Your task to perform on an android device: all mails in gmail Image 0: 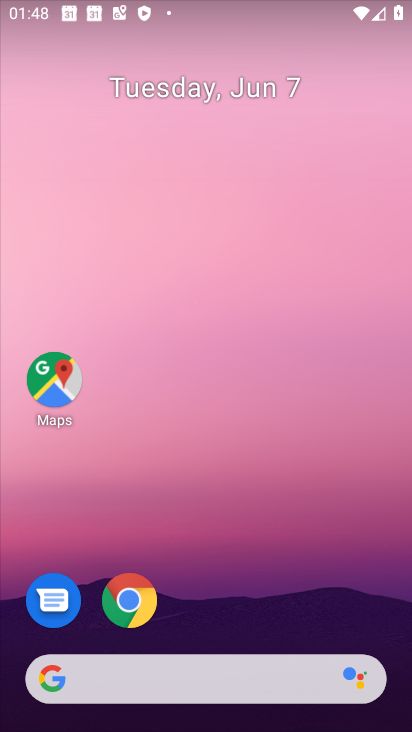
Step 0: drag from (206, 727) to (206, 174)
Your task to perform on an android device: all mails in gmail Image 1: 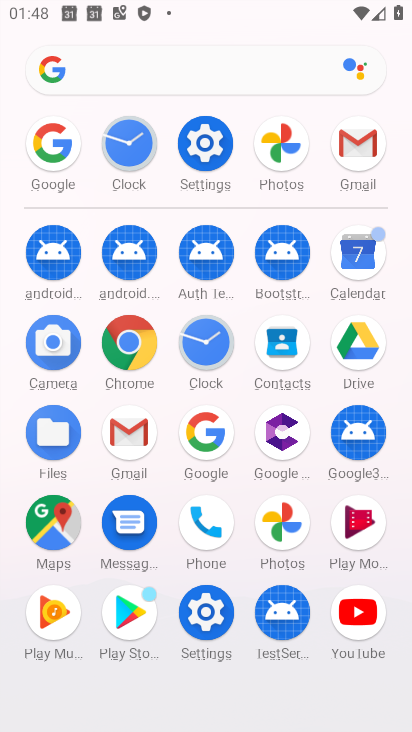
Step 1: click (132, 429)
Your task to perform on an android device: all mails in gmail Image 2: 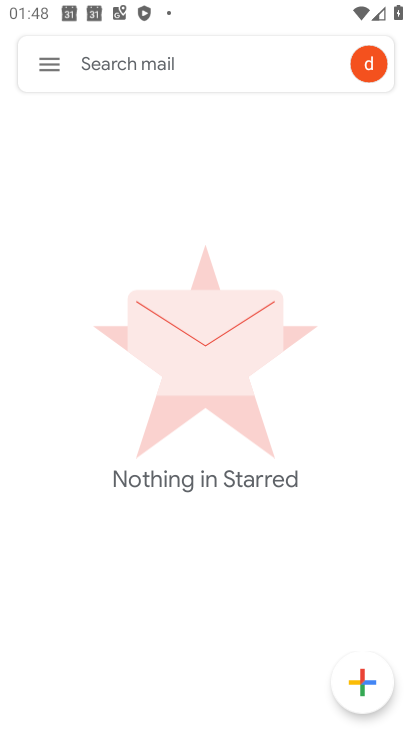
Step 2: click (50, 61)
Your task to perform on an android device: all mails in gmail Image 3: 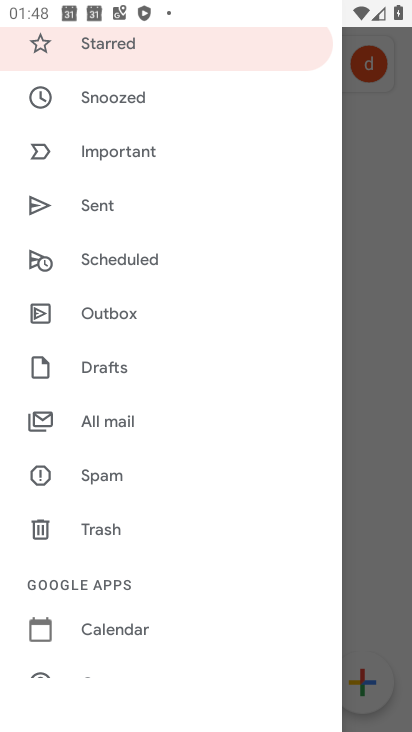
Step 3: click (109, 415)
Your task to perform on an android device: all mails in gmail Image 4: 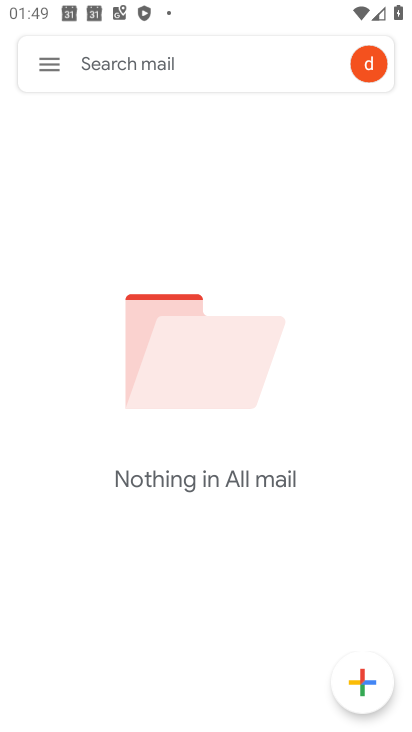
Step 4: task complete